Your task to perform on an android device: allow notifications from all sites in the chrome app Image 0: 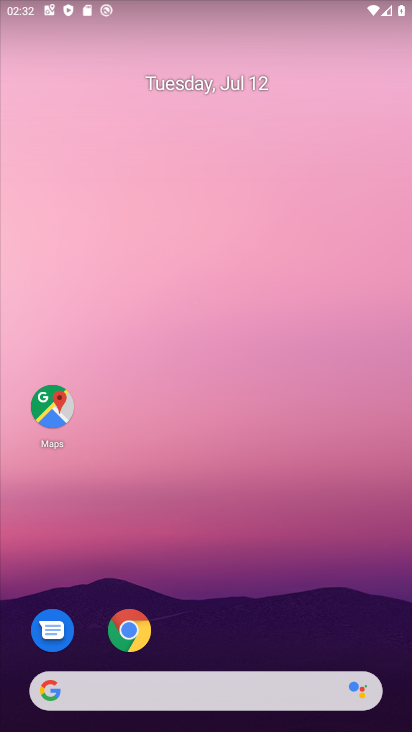
Step 0: click (127, 630)
Your task to perform on an android device: allow notifications from all sites in the chrome app Image 1: 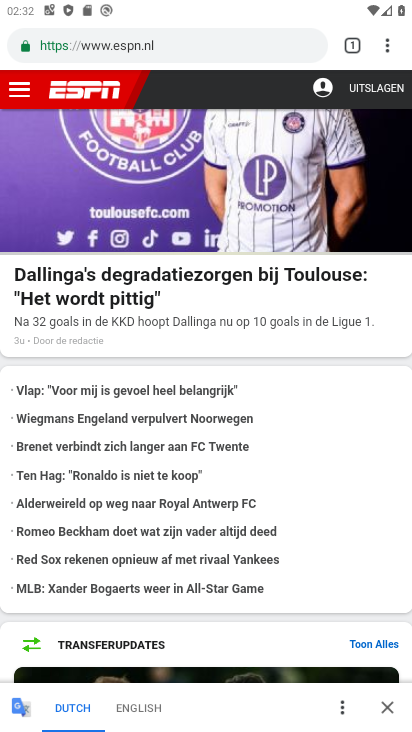
Step 1: click (386, 47)
Your task to perform on an android device: allow notifications from all sites in the chrome app Image 2: 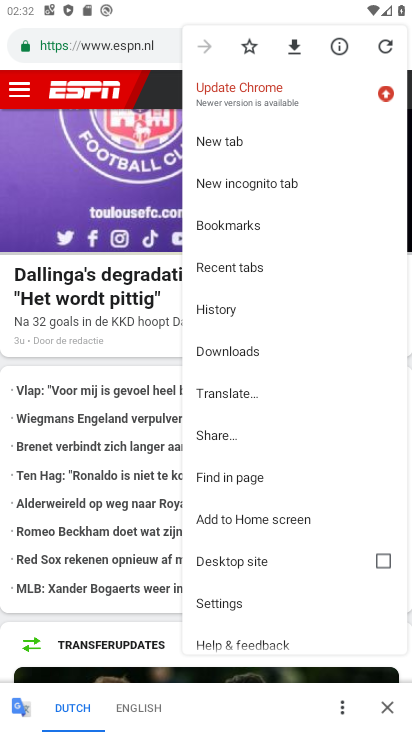
Step 2: click (228, 606)
Your task to perform on an android device: allow notifications from all sites in the chrome app Image 3: 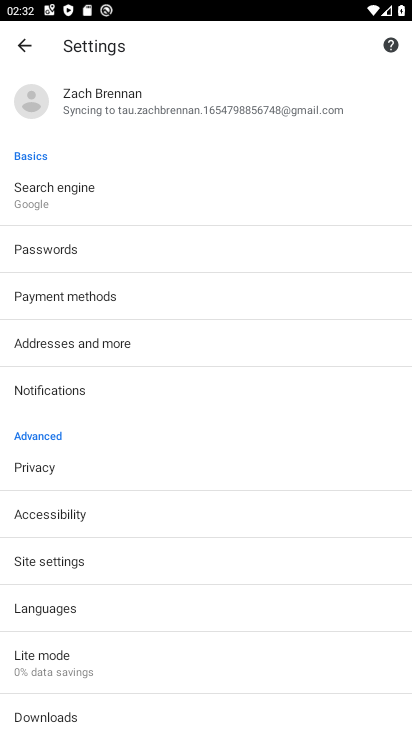
Step 3: click (49, 560)
Your task to perform on an android device: allow notifications from all sites in the chrome app Image 4: 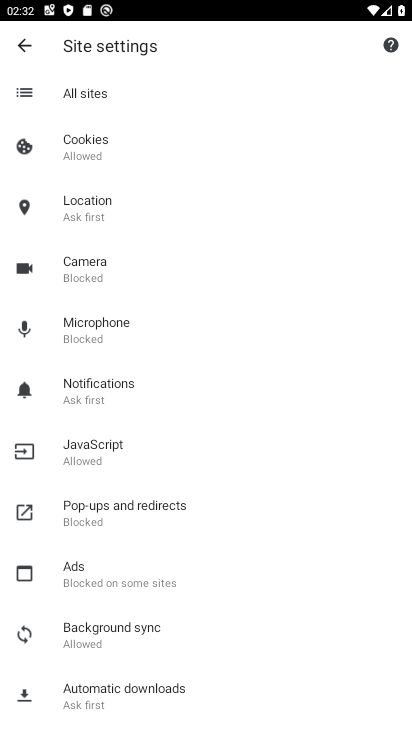
Step 4: click (86, 378)
Your task to perform on an android device: allow notifications from all sites in the chrome app Image 5: 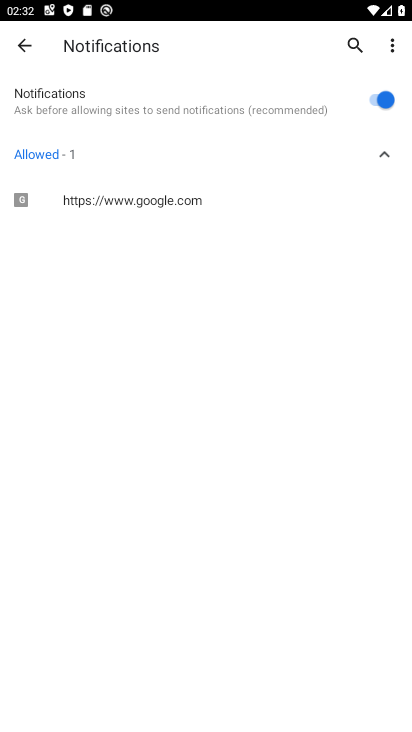
Step 5: task complete